Your task to perform on an android device: Open Reddit.com Image 0: 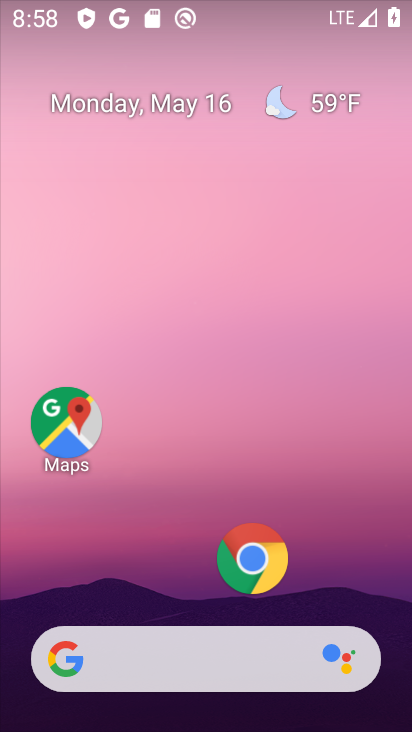
Step 0: click (247, 559)
Your task to perform on an android device: Open Reddit.com Image 1: 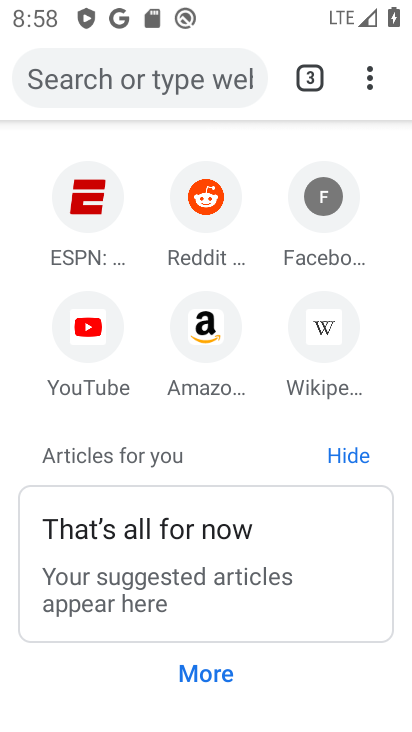
Step 1: click (210, 209)
Your task to perform on an android device: Open Reddit.com Image 2: 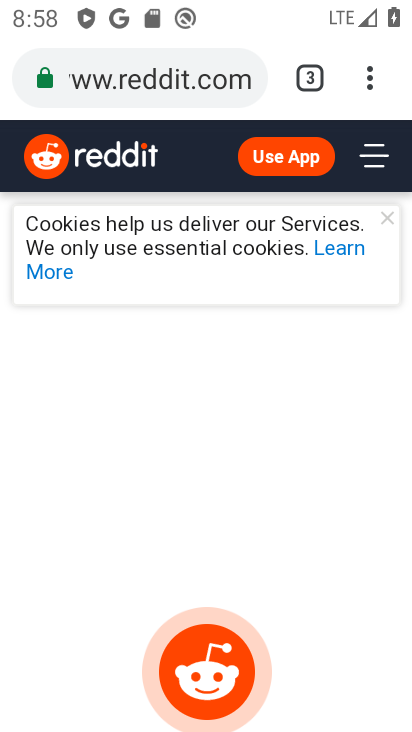
Step 2: task complete